Your task to perform on an android device: set default search engine in the chrome app Image 0: 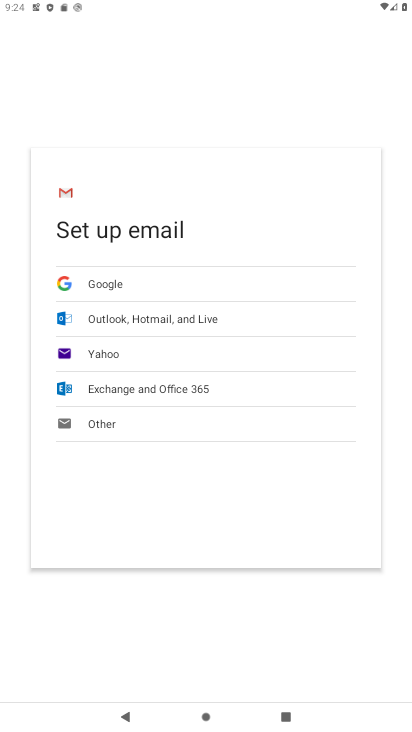
Step 0: task complete